Your task to perform on an android device: change the upload size in google photos Image 0: 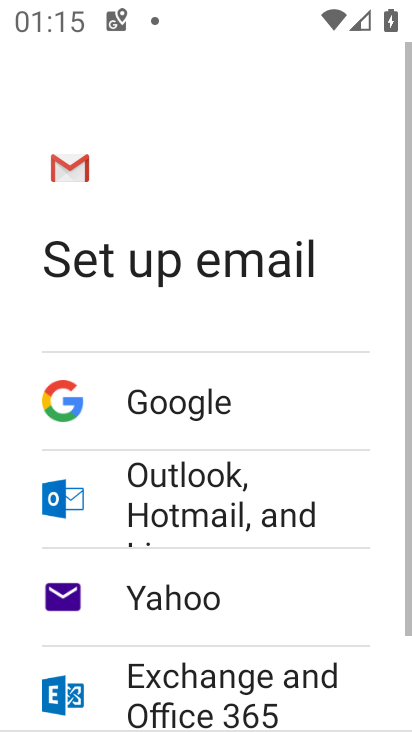
Step 0: press home button
Your task to perform on an android device: change the upload size in google photos Image 1: 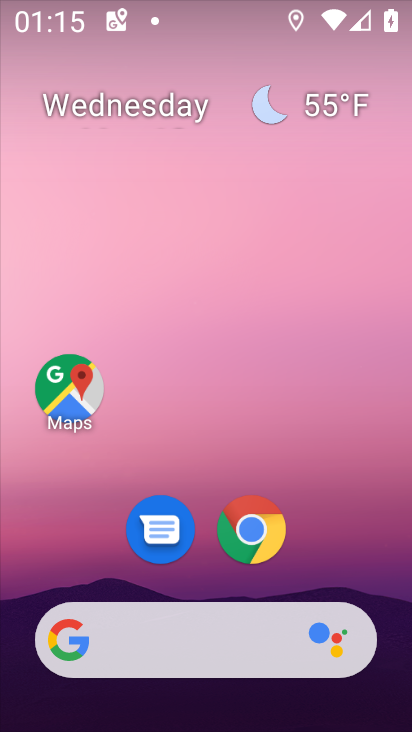
Step 1: drag from (231, 722) to (234, 162)
Your task to perform on an android device: change the upload size in google photos Image 2: 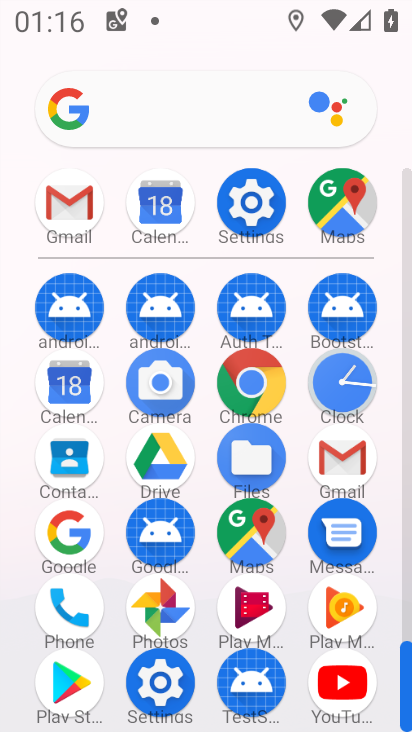
Step 2: click (167, 607)
Your task to perform on an android device: change the upload size in google photos Image 3: 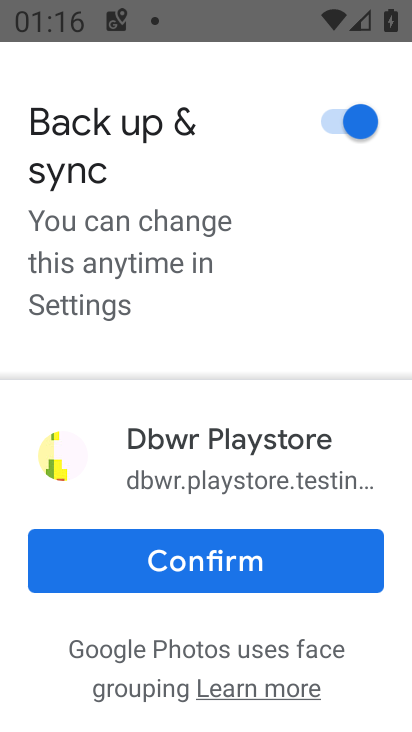
Step 3: click (226, 559)
Your task to perform on an android device: change the upload size in google photos Image 4: 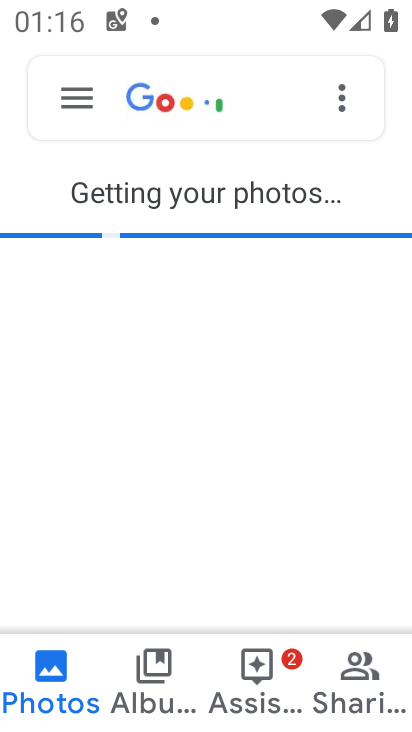
Step 4: click (77, 100)
Your task to perform on an android device: change the upload size in google photos Image 5: 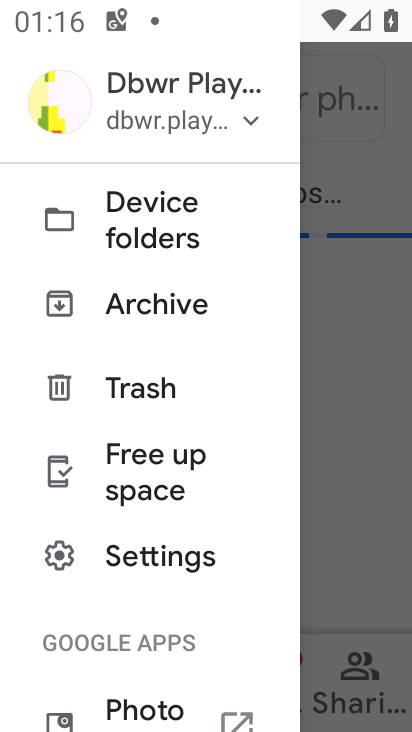
Step 5: drag from (132, 632) to (167, 264)
Your task to perform on an android device: change the upload size in google photos Image 6: 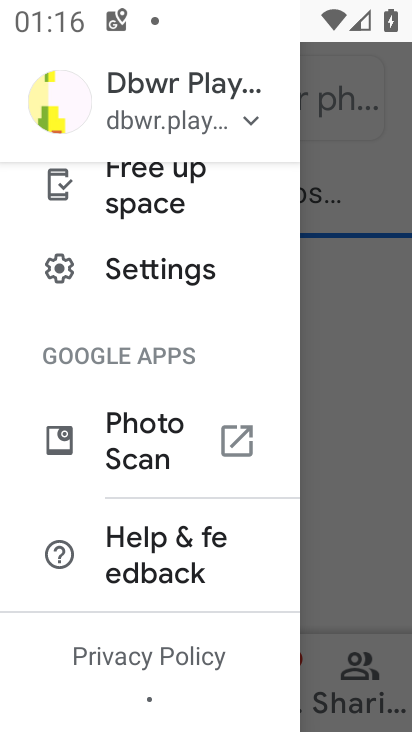
Step 6: click (144, 267)
Your task to perform on an android device: change the upload size in google photos Image 7: 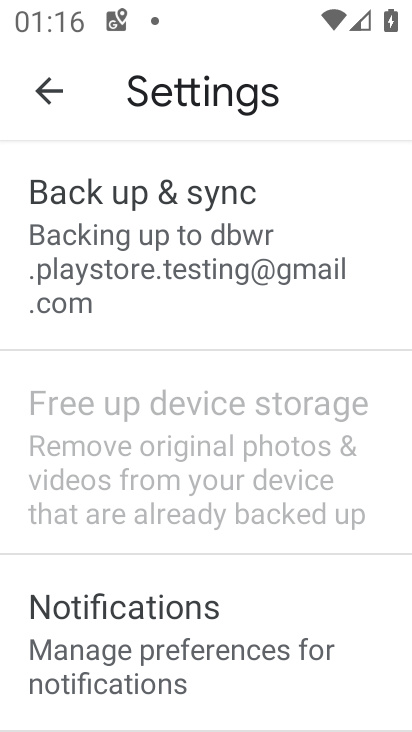
Step 7: click (161, 268)
Your task to perform on an android device: change the upload size in google photos Image 8: 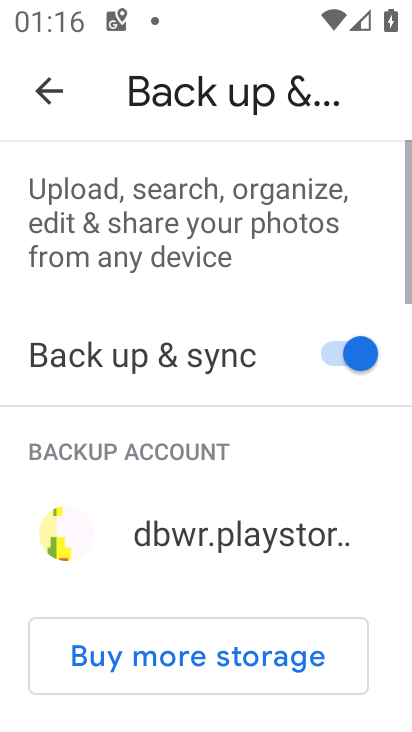
Step 8: drag from (184, 614) to (192, 138)
Your task to perform on an android device: change the upload size in google photos Image 9: 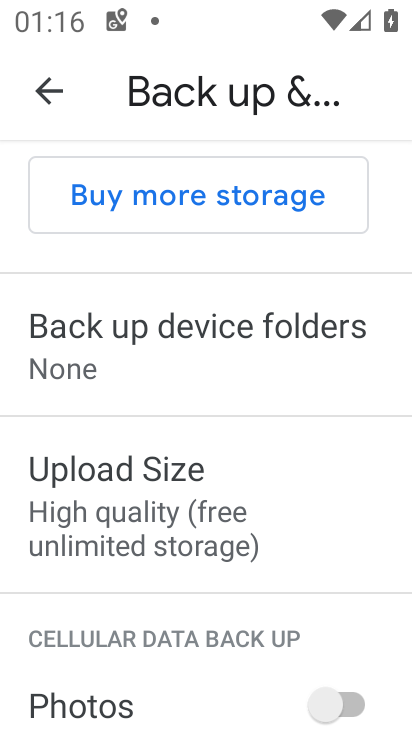
Step 9: drag from (162, 632) to (162, 470)
Your task to perform on an android device: change the upload size in google photos Image 10: 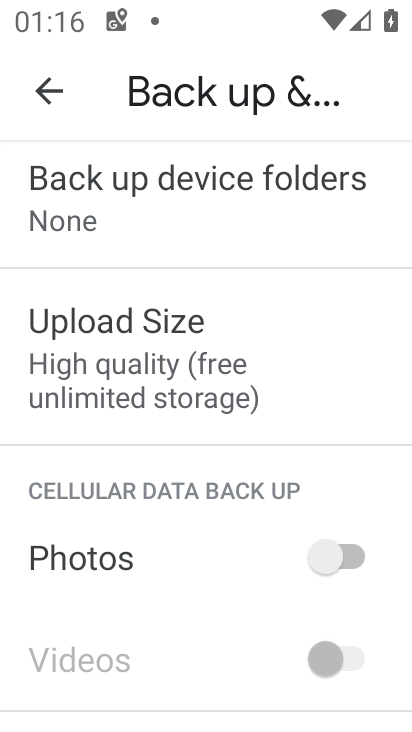
Step 10: click (118, 351)
Your task to perform on an android device: change the upload size in google photos Image 11: 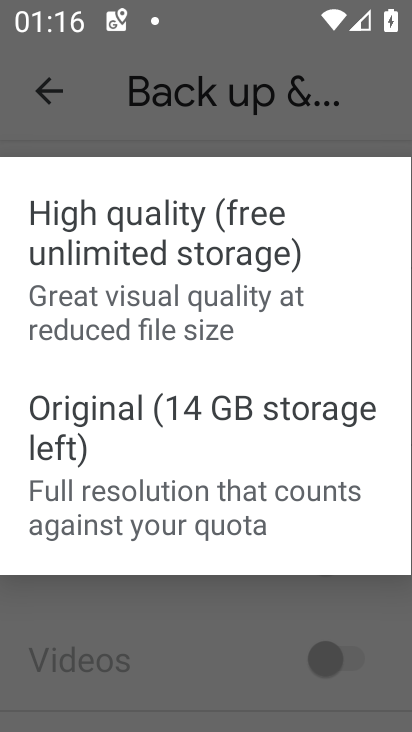
Step 11: click (86, 455)
Your task to perform on an android device: change the upload size in google photos Image 12: 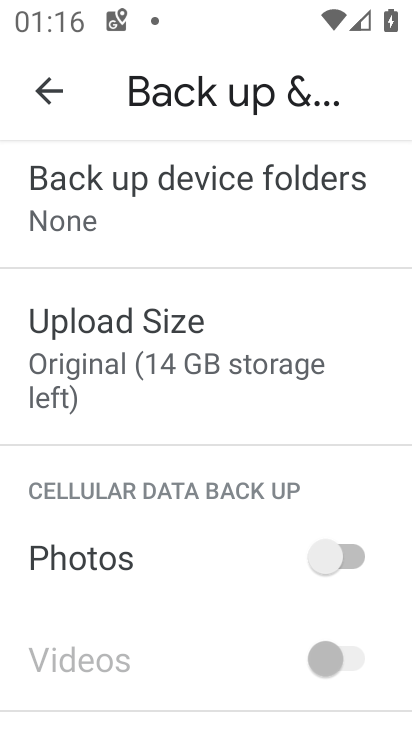
Step 12: task complete